Your task to perform on an android device: Open Chrome and go to settings Image 0: 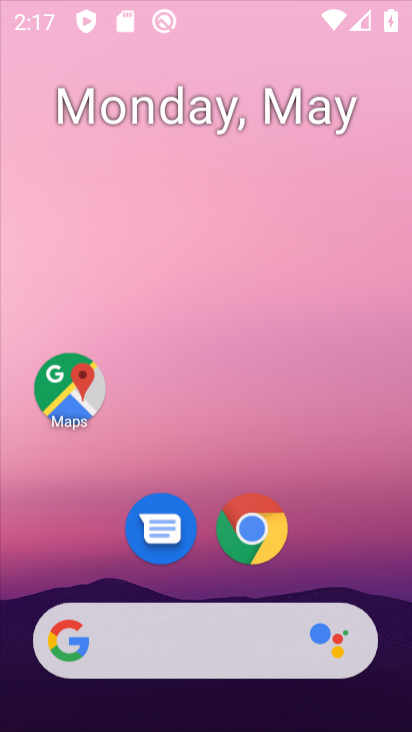
Step 0: click (251, 531)
Your task to perform on an android device: Open Chrome and go to settings Image 1: 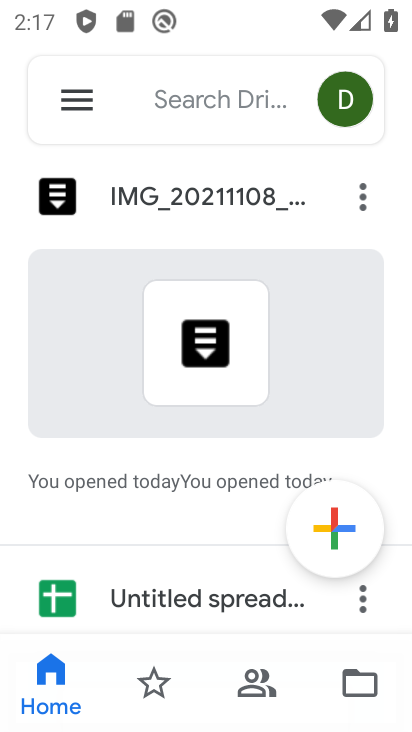
Step 1: press back button
Your task to perform on an android device: Open Chrome and go to settings Image 2: 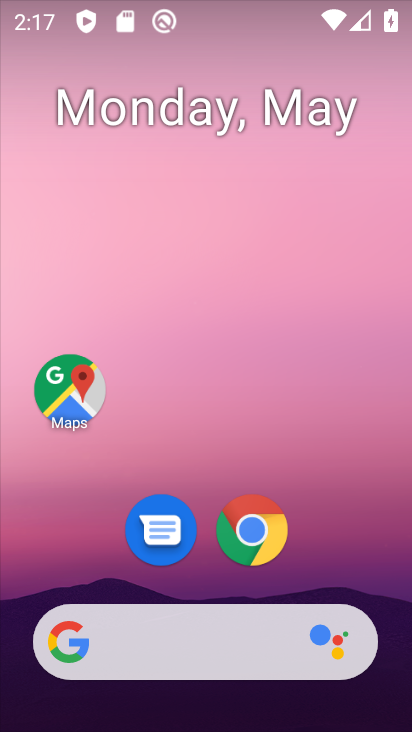
Step 2: click (260, 519)
Your task to perform on an android device: Open Chrome and go to settings Image 3: 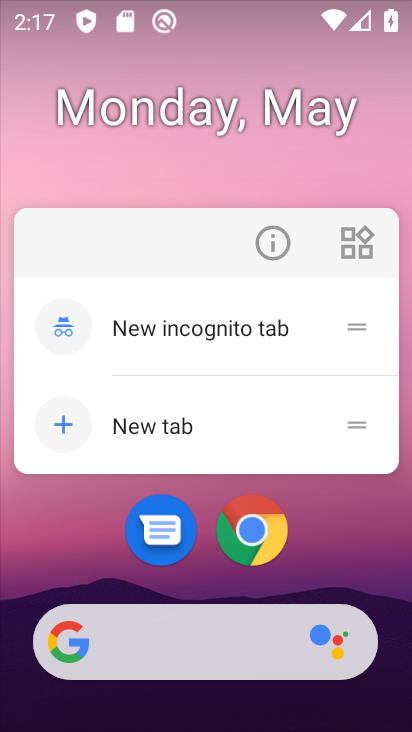
Step 3: click (265, 534)
Your task to perform on an android device: Open Chrome and go to settings Image 4: 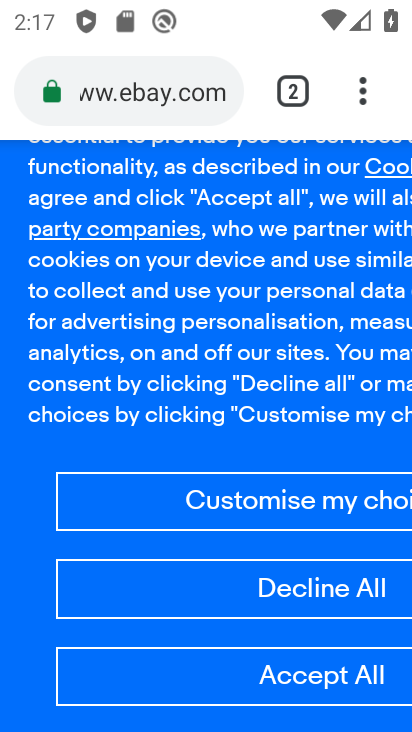
Step 4: task complete